Your task to perform on an android device: Open Reddit.com Image 0: 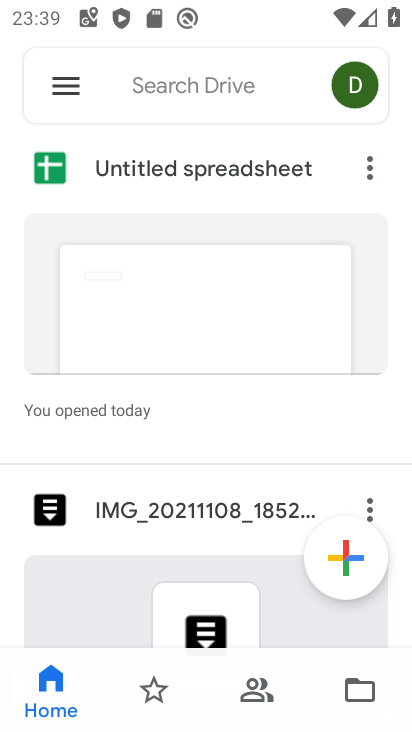
Step 0: press home button
Your task to perform on an android device: Open Reddit.com Image 1: 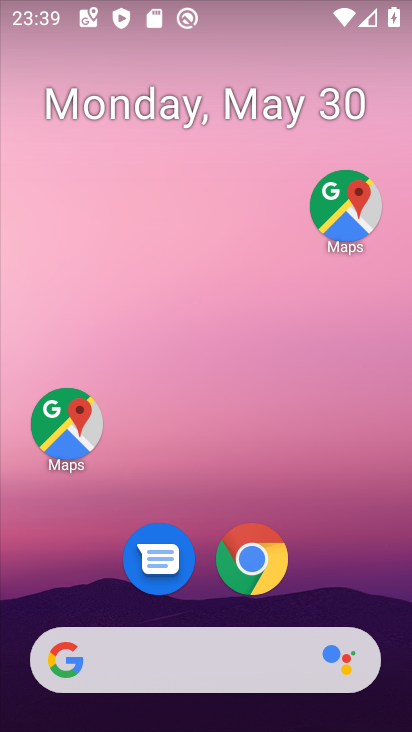
Step 1: click (251, 566)
Your task to perform on an android device: Open Reddit.com Image 2: 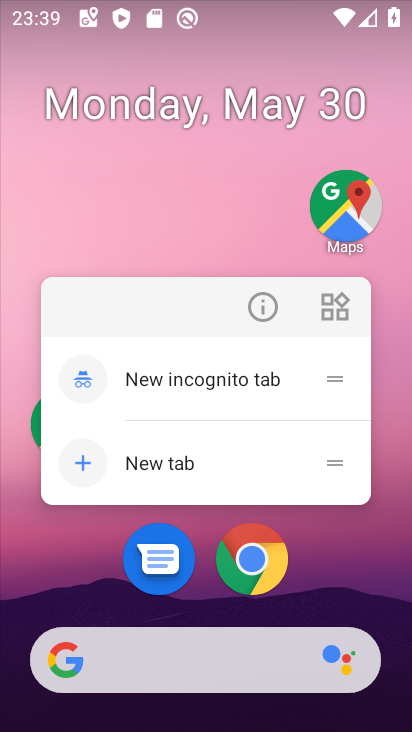
Step 2: click (251, 562)
Your task to perform on an android device: Open Reddit.com Image 3: 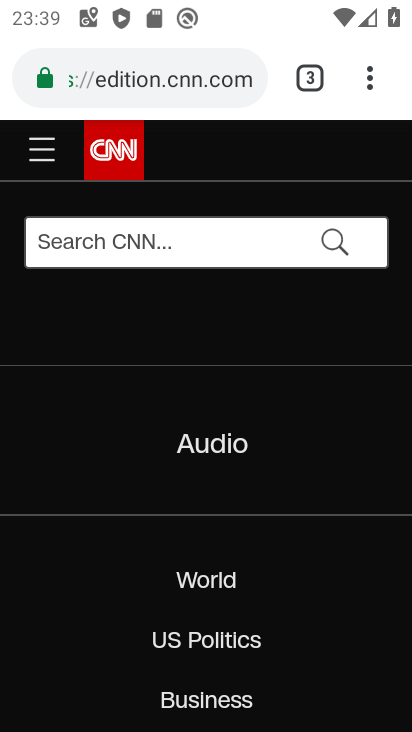
Step 3: click (202, 73)
Your task to perform on an android device: Open Reddit.com Image 4: 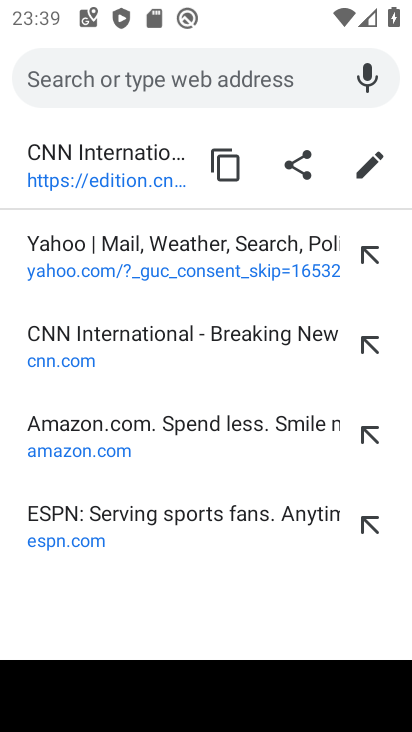
Step 4: type "reddit.com"
Your task to perform on an android device: Open Reddit.com Image 5: 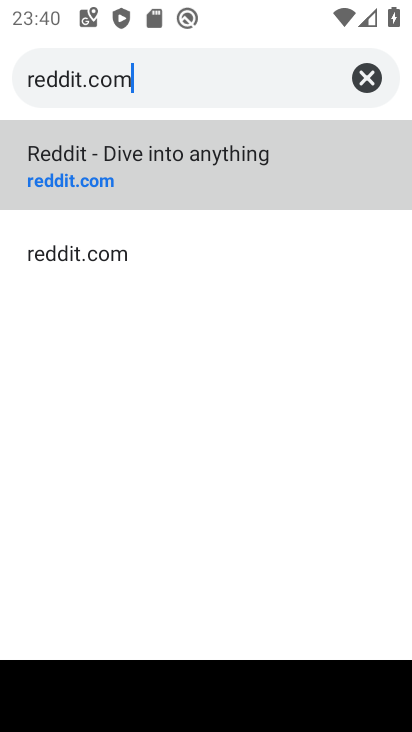
Step 5: click (87, 175)
Your task to perform on an android device: Open Reddit.com Image 6: 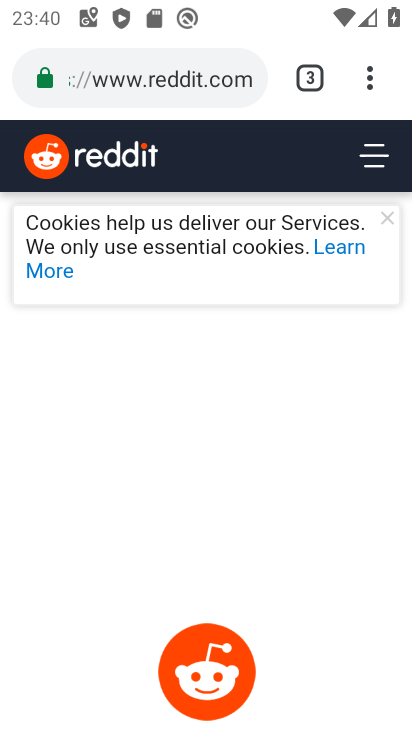
Step 6: task complete